Your task to perform on an android device: empty trash in google photos Image 0: 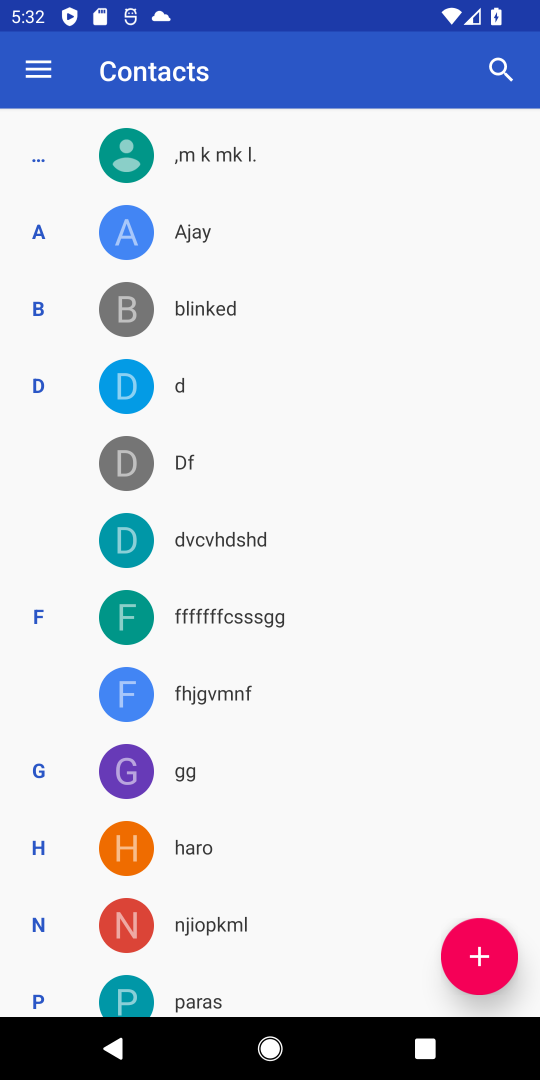
Step 0: press back button
Your task to perform on an android device: empty trash in google photos Image 1: 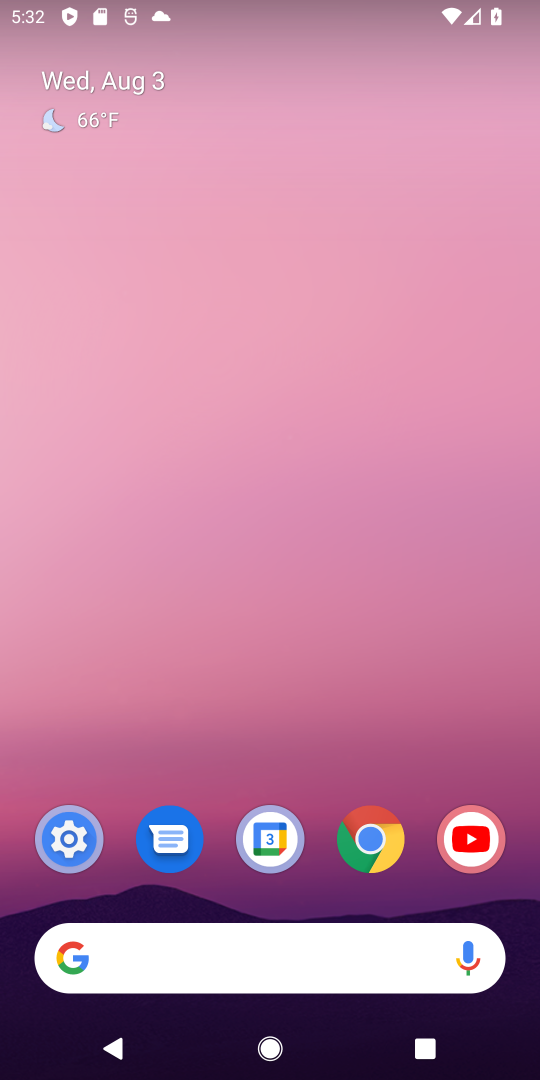
Step 1: drag from (298, 540) to (310, 7)
Your task to perform on an android device: empty trash in google photos Image 2: 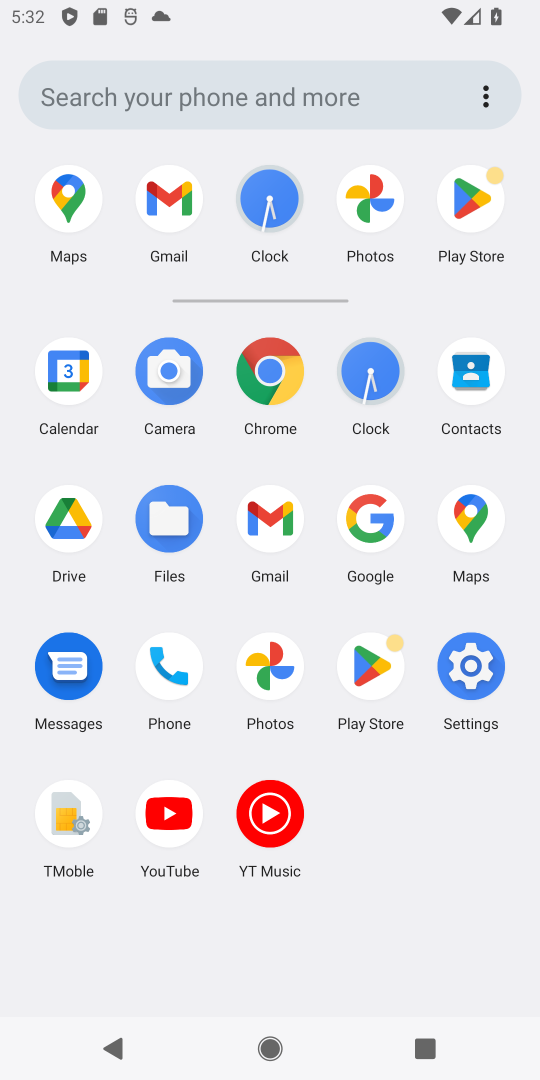
Step 2: click (278, 665)
Your task to perform on an android device: empty trash in google photos Image 3: 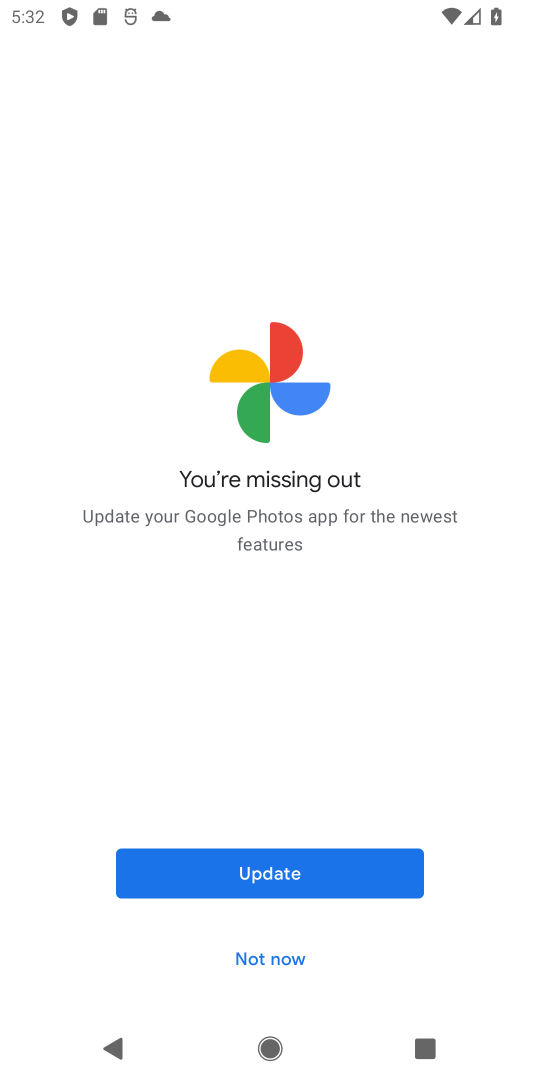
Step 3: click (292, 958)
Your task to perform on an android device: empty trash in google photos Image 4: 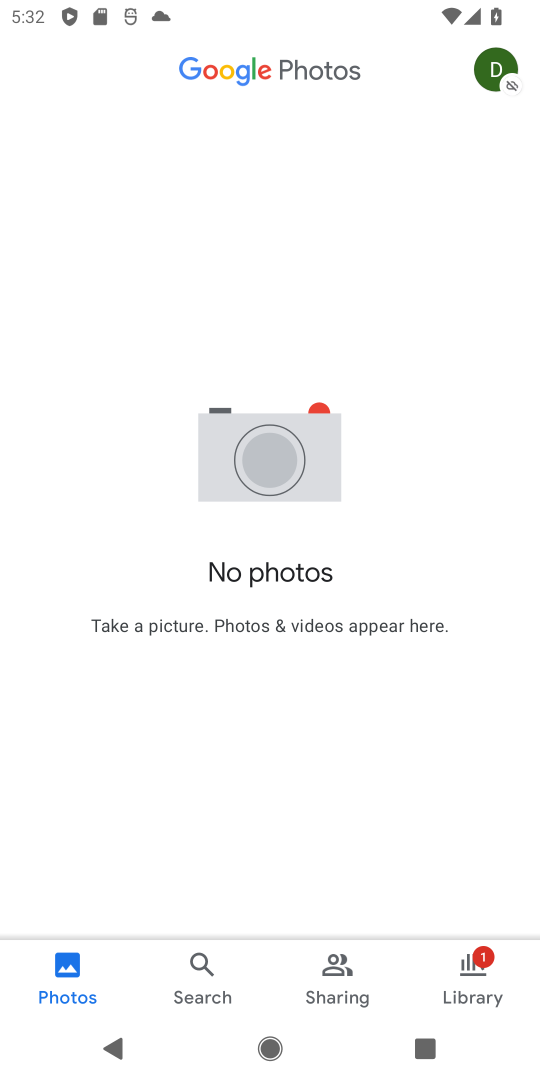
Step 4: task complete